Your task to perform on an android device: make emails show in primary in the gmail app Image 0: 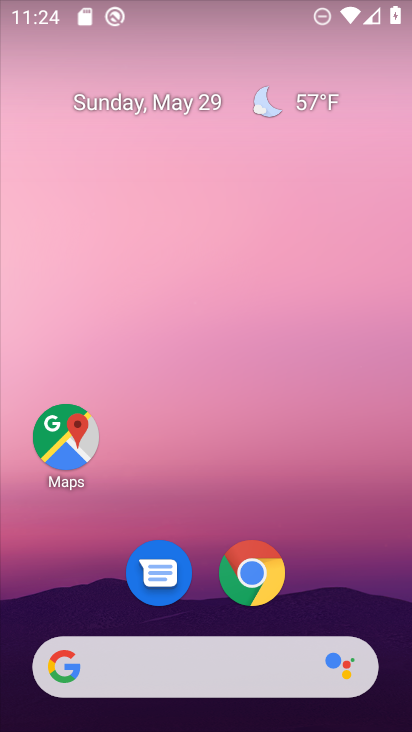
Step 0: drag from (324, 591) to (325, 35)
Your task to perform on an android device: make emails show in primary in the gmail app Image 1: 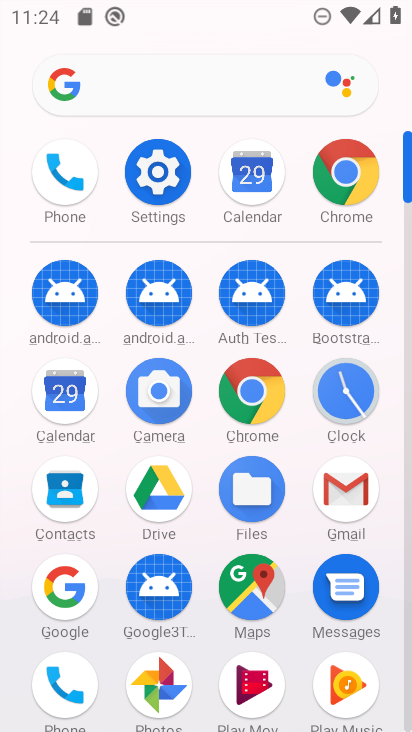
Step 1: click (357, 504)
Your task to perform on an android device: make emails show in primary in the gmail app Image 2: 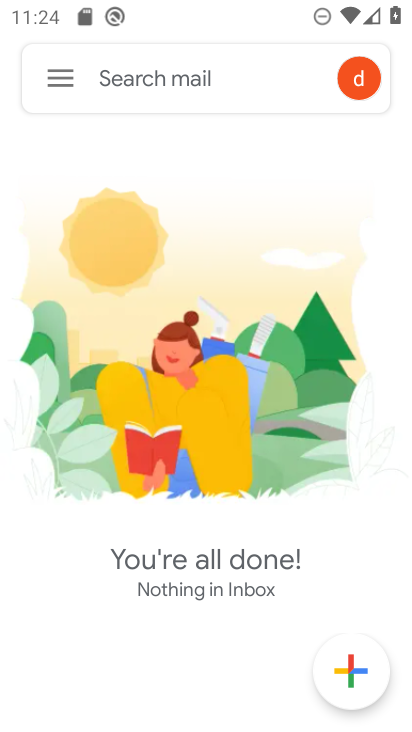
Step 2: click (60, 78)
Your task to perform on an android device: make emails show in primary in the gmail app Image 3: 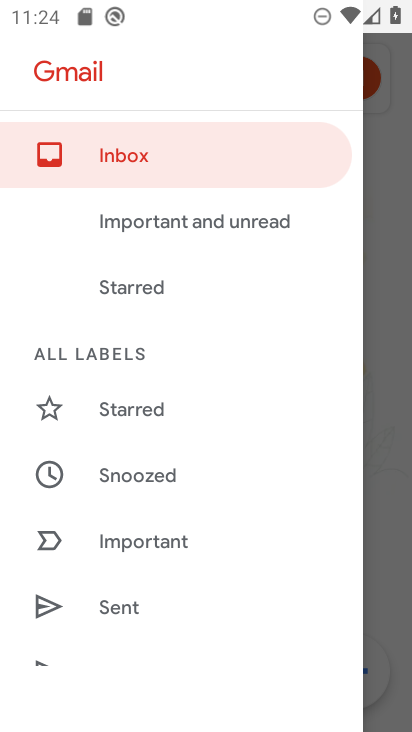
Step 3: drag from (320, 682) to (273, 274)
Your task to perform on an android device: make emails show in primary in the gmail app Image 4: 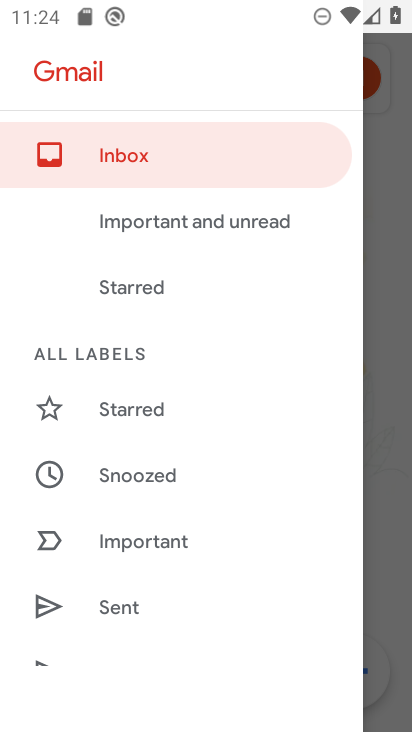
Step 4: drag from (124, 562) to (219, 77)
Your task to perform on an android device: make emails show in primary in the gmail app Image 5: 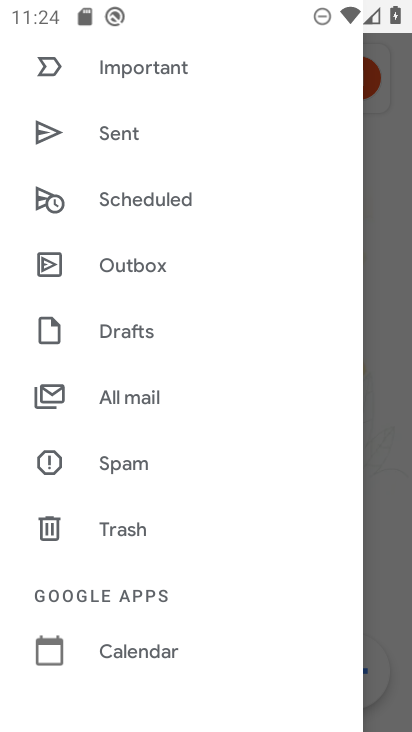
Step 5: drag from (104, 111) to (78, 701)
Your task to perform on an android device: make emails show in primary in the gmail app Image 6: 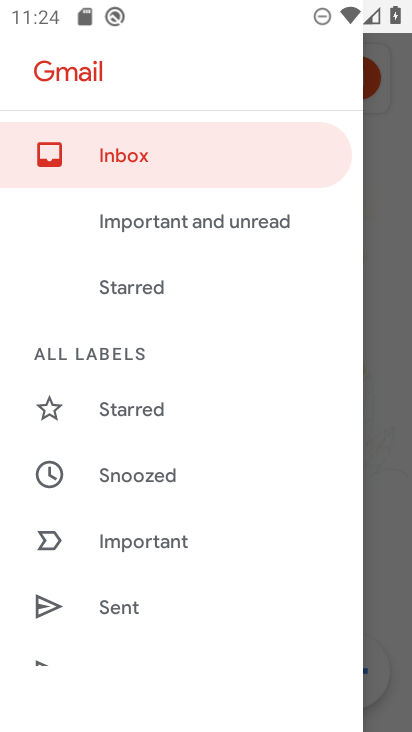
Step 6: drag from (131, 516) to (158, 112)
Your task to perform on an android device: make emails show in primary in the gmail app Image 7: 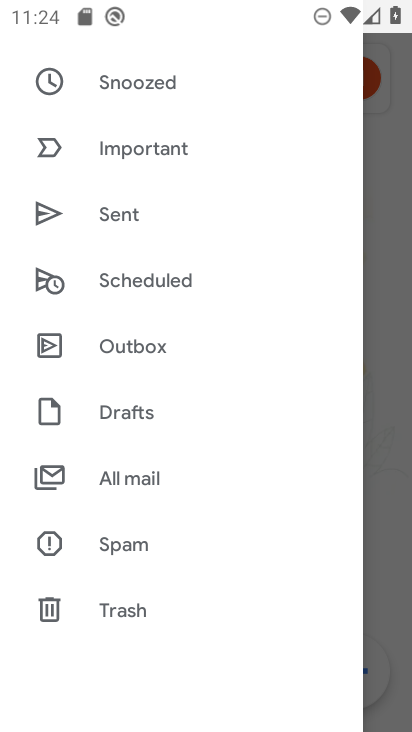
Step 7: drag from (118, 584) to (92, 244)
Your task to perform on an android device: make emails show in primary in the gmail app Image 8: 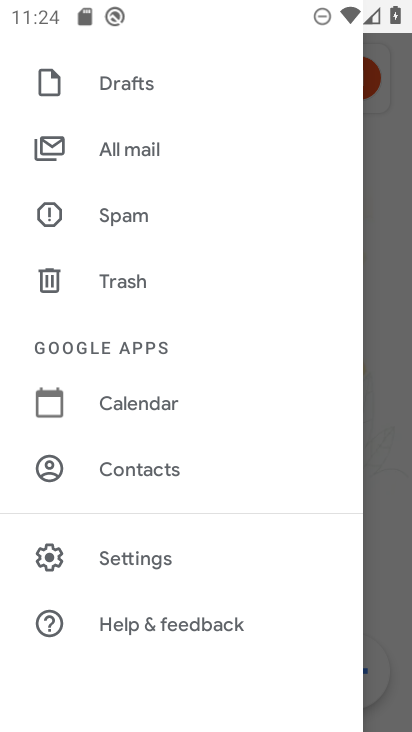
Step 8: click (156, 560)
Your task to perform on an android device: make emails show in primary in the gmail app Image 9: 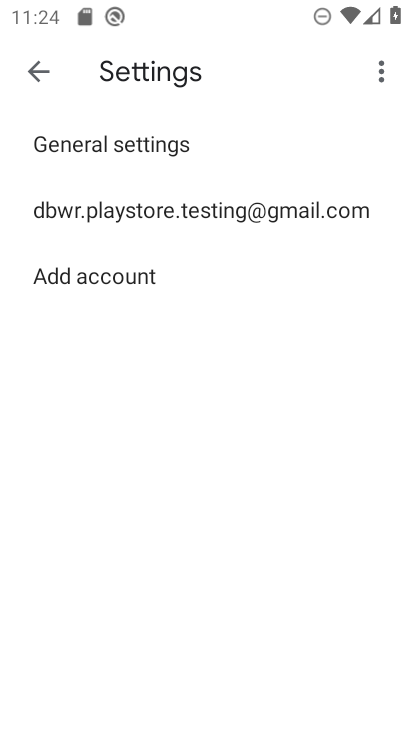
Step 9: click (158, 223)
Your task to perform on an android device: make emails show in primary in the gmail app Image 10: 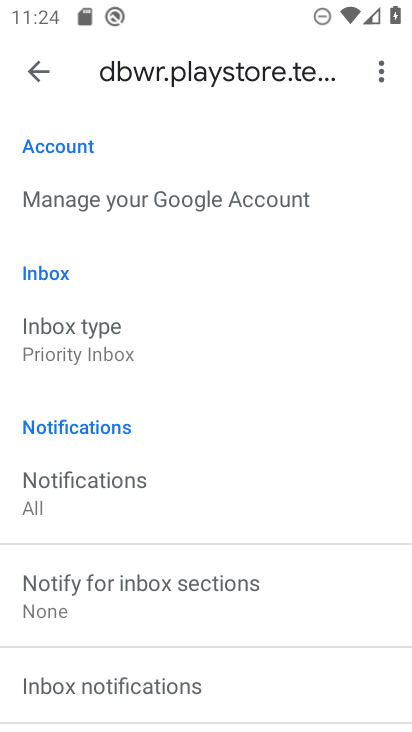
Step 10: click (92, 351)
Your task to perform on an android device: make emails show in primary in the gmail app Image 11: 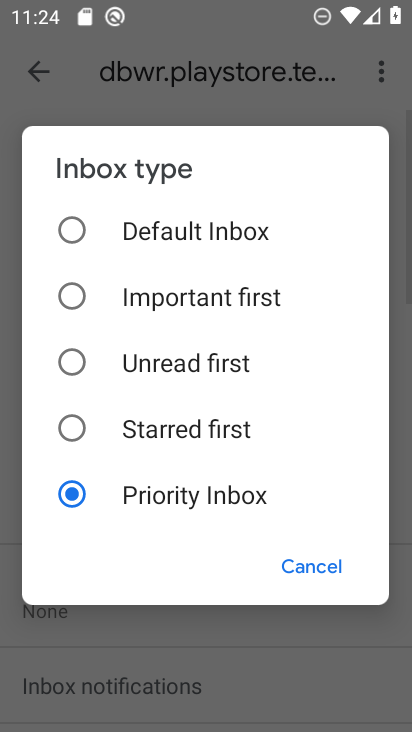
Step 11: click (145, 230)
Your task to perform on an android device: make emails show in primary in the gmail app Image 12: 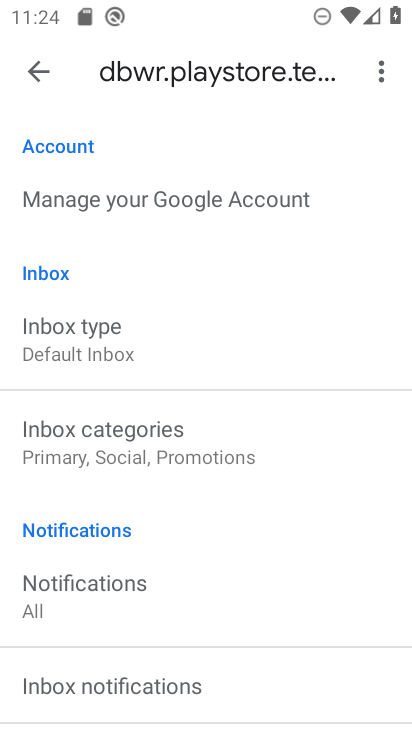
Step 12: press back button
Your task to perform on an android device: make emails show in primary in the gmail app Image 13: 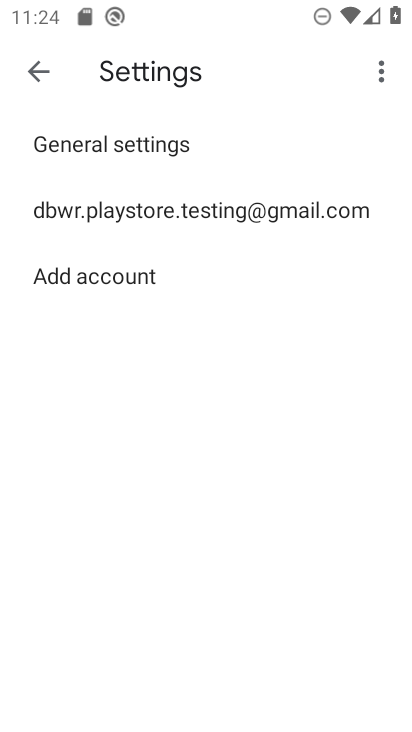
Step 13: press back button
Your task to perform on an android device: make emails show in primary in the gmail app Image 14: 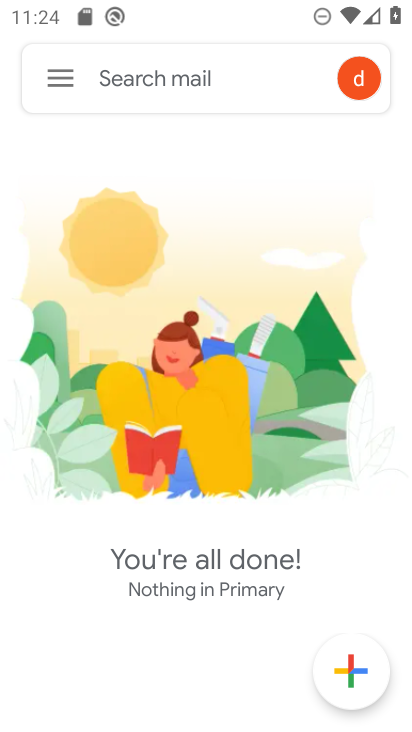
Step 14: click (67, 62)
Your task to perform on an android device: make emails show in primary in the gmail app Image 15: 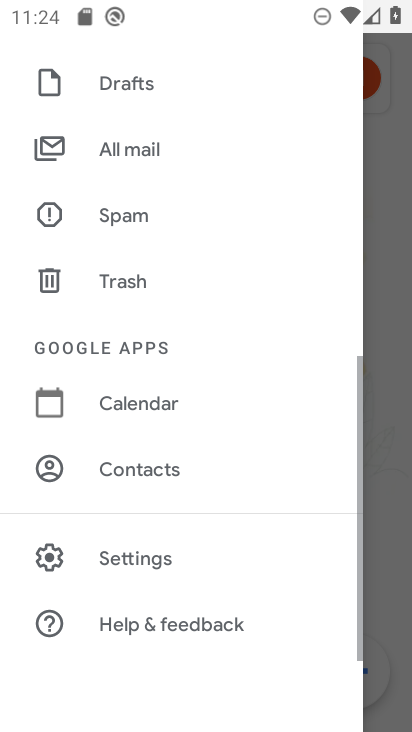
Step 15: drag from (227, 161) to (290, 714)
Your task to perform on an android device: make emails show in primary in the gmail app Image 16: 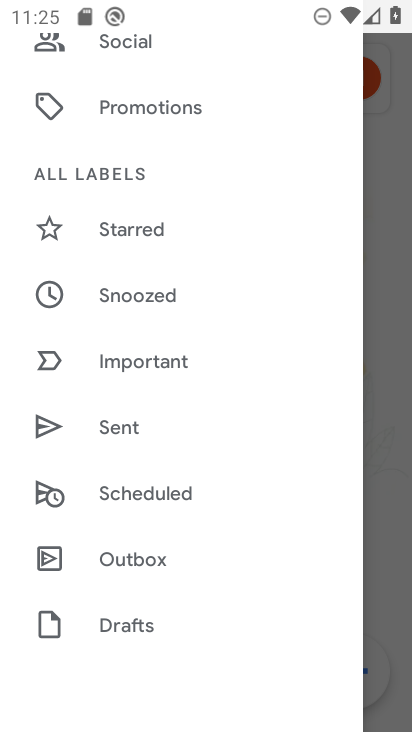
Step 16: drag from (251, 179) to (210, 681)
Your task to perform on an android device: make emails show in primary in the gmail app Image 17: 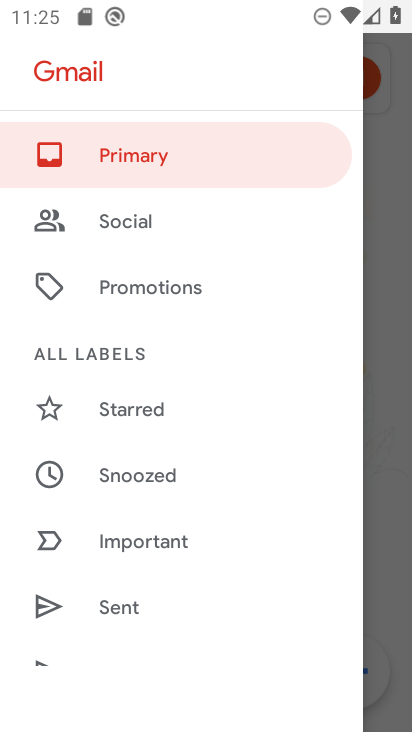
Step 17: click (253, 161)
Your task to perform on an android device: make emails show in primary in the gmail app Image 18: 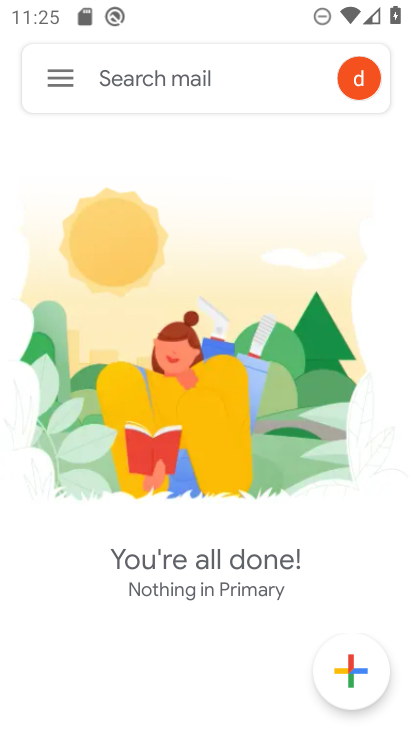
Step 18: task complete